Your task to perform on an android device: Search for seafood restaurants on Google Maps Image 0: 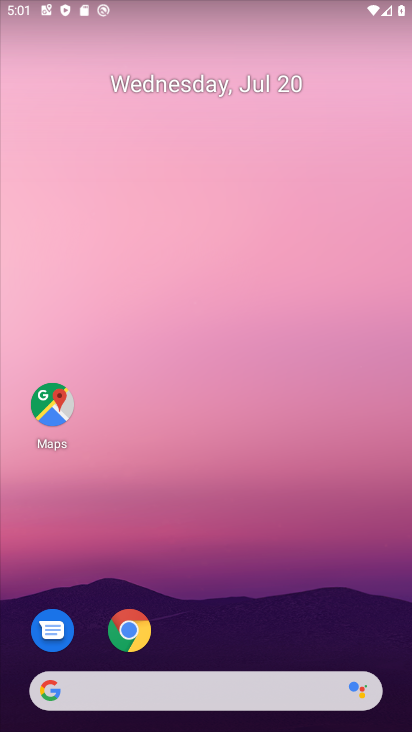
Step 0: drag from (307, 658) to (331, 5)
Your task to perform on an android device: Search for seafood restaurants on Google Maps Image 1: 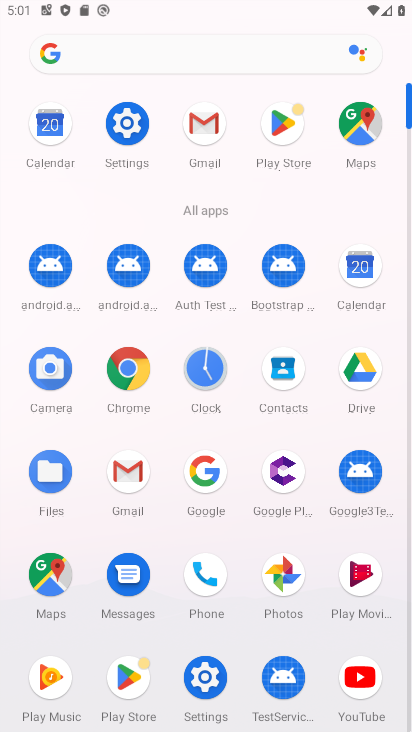
Step 1: click (37, 573)
Your task to perform on an android device: Search for seafood restaurants on Google Maps Image 2: 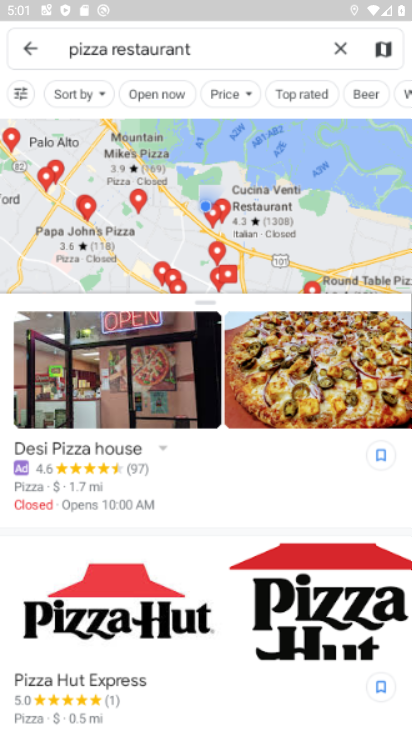
Step 2: click (342, 48)
Your task to perform on an android device: Search for seafood restaurants on Google Maps Image 3: 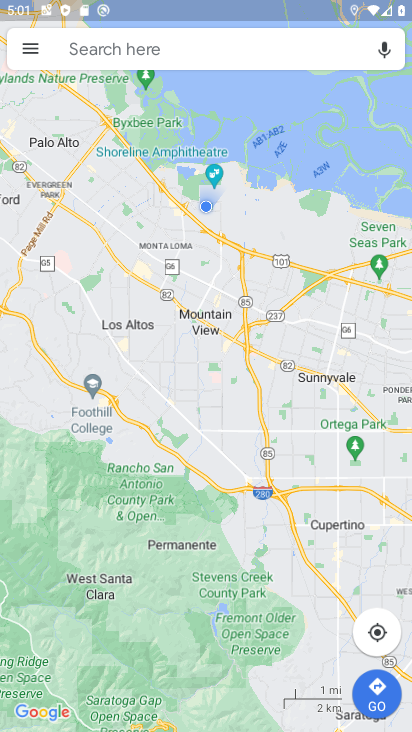
Step 3: click (234, 54)
Your task to perform on an android device: Search for seafood restaurants on Google Maps Image 4: 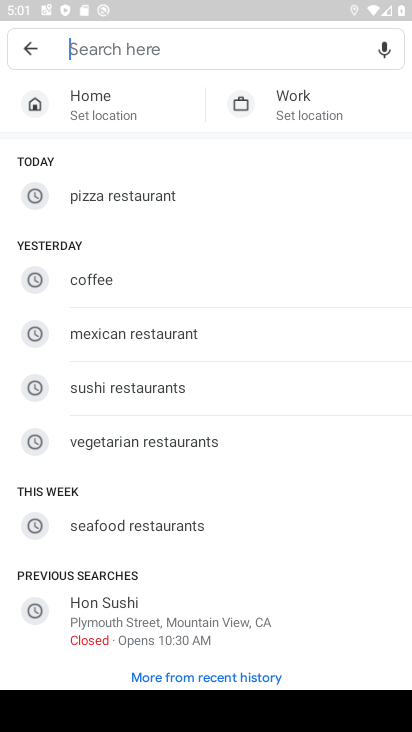
Step 4: drag from (258, 614) to (293, 367)
Your task to perform on an android device: Search for seafood restaurants on Google Maps Image 5: 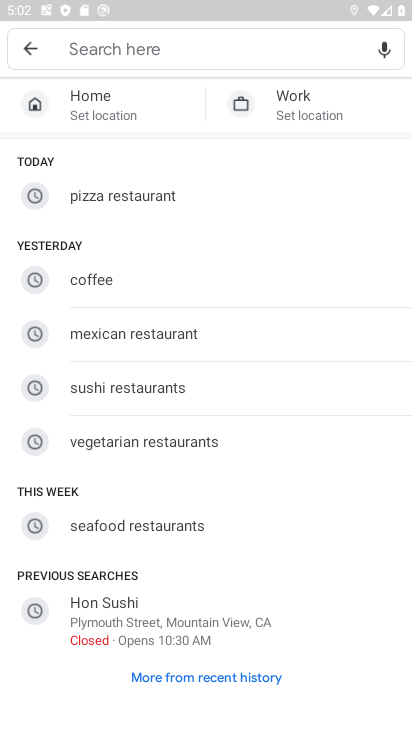
Step 5: click (195, 509)
Your task to perform on an android device: Search for seafood restaurants on Google Maps Image 6: 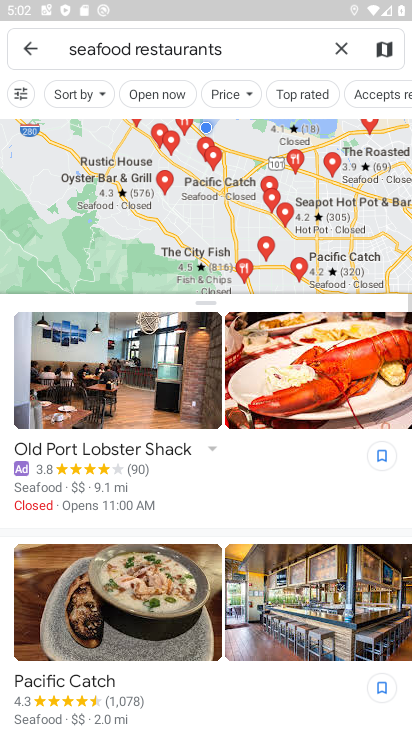
Step 6: task complete